Your task to perform on an android device: move an email to a new category in the gmail app Image 0: 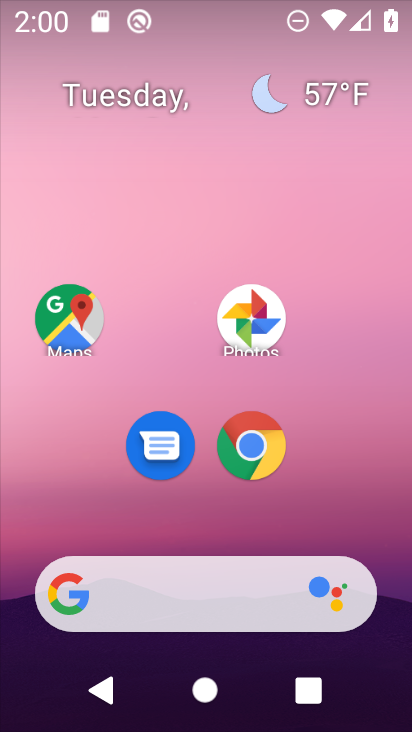
Step 0: drag from (378, 544) to (375, 208)
Your task to perform on an android device: move an email to a new category in the gmail app Image 1: 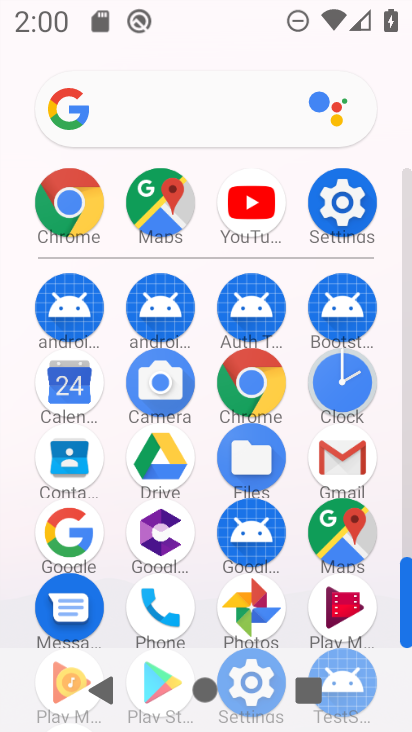
Step 1: click (360, 472)
Your task to perform on an android device: move an email to a new category in the gmail app Image 2: 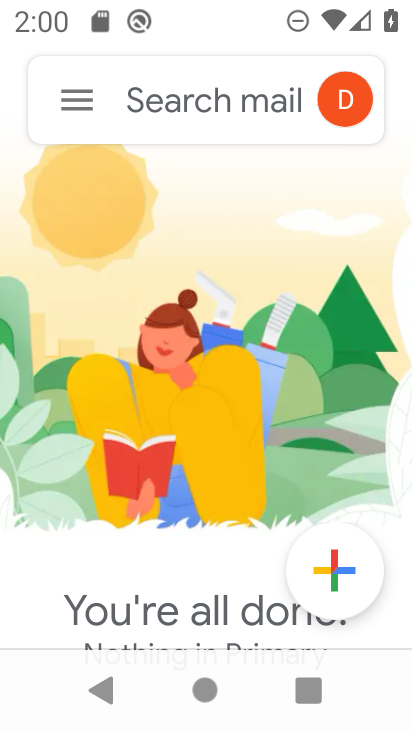
Step 2: click (74, 103)
Your task to perform on an android device: move an email to a new category in the gmail app Image 3: 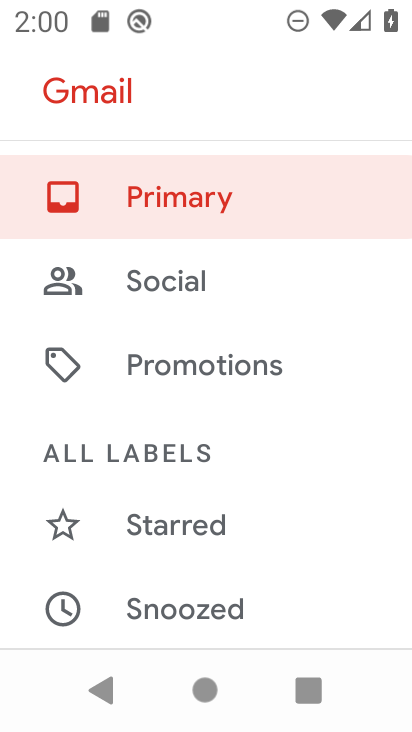
Step 3: drag from (310, 567) to (306, 458)
Your task to perform on an android device: move an email to a new category in the gmail app Image 4: 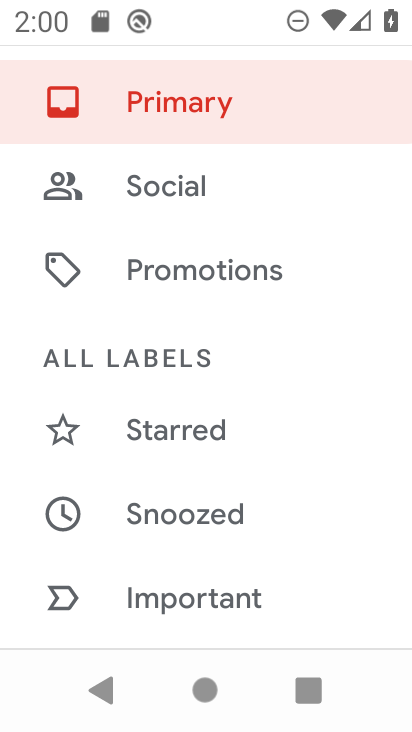
Step 4: drag from (329, 626) to (327, 433)
Your task to perform on an android device: move an email to a new category in the gmail app Image 5: 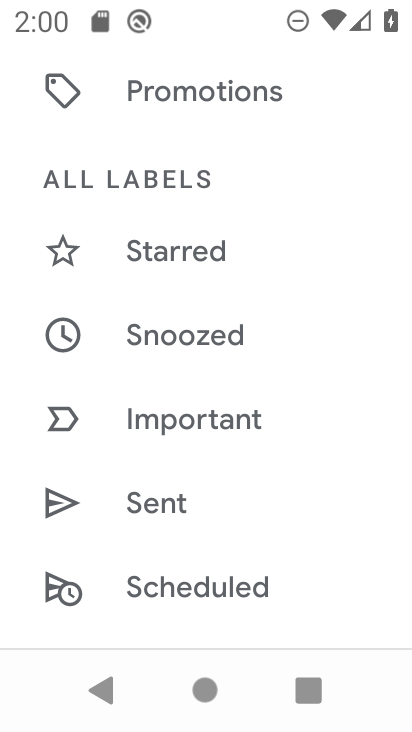
Step 5: drag from (330, 580) to (328, 450)
Your task to perform on an android device: move an email to a new category in the gmail app Image 6: 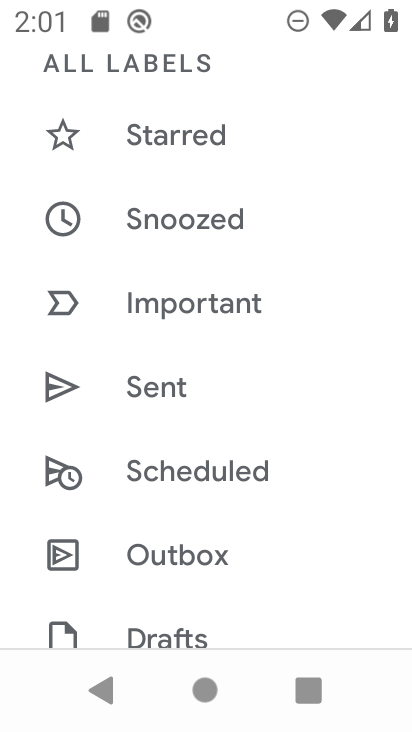
Step 6: drag from (331, 590) to (328, 458)
Your task to perform on an android device: move an email to a new category in the gmail app Image 7: 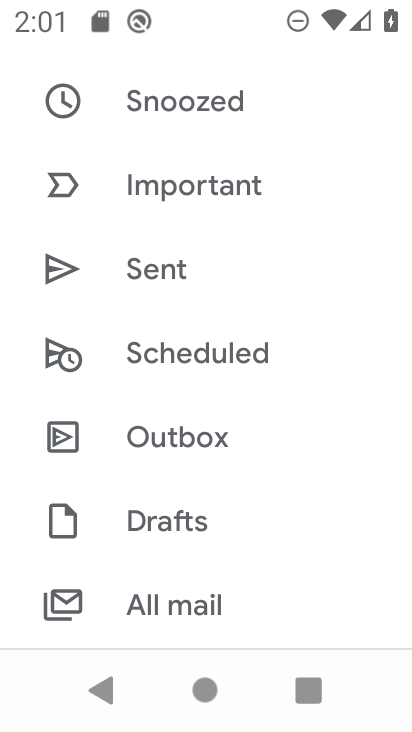
Step 7: drag from (320, 321) to (332, 465)
Your task to perform on an android device: move an email to a new category in the gmail app Image 8: 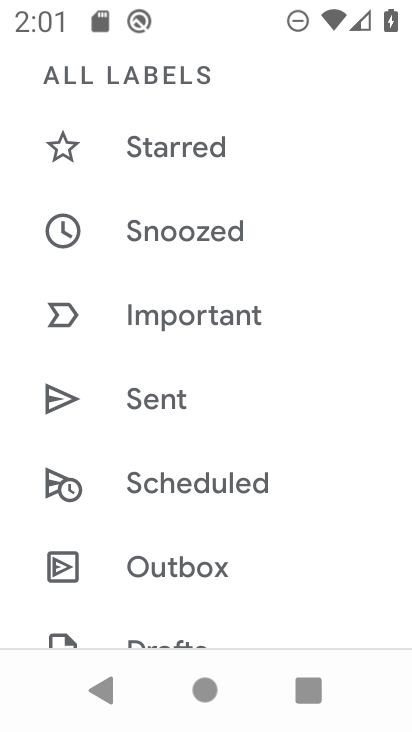
Step 8: drag from (336, 297) to (325, 500)
Your task to perform on an android device: move an email to a new category in the gmail app Image 9: 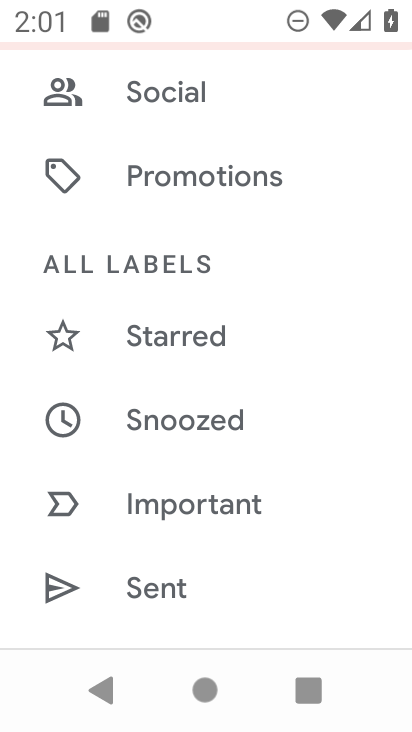
Step 9: drag from (335, 235) to (329, 494)
Your task to perform on an android device: move an email to a new category in the gmail app Image 10: 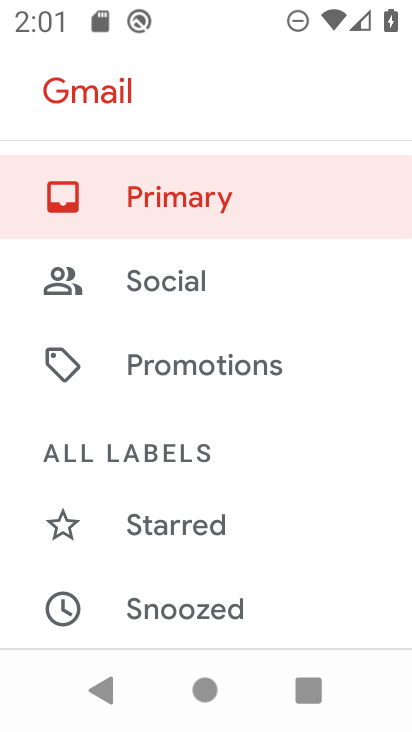
Step 10: click (255, 205)
Your task to perform on an android device: move an email to a new category in the gmail app Image 11: 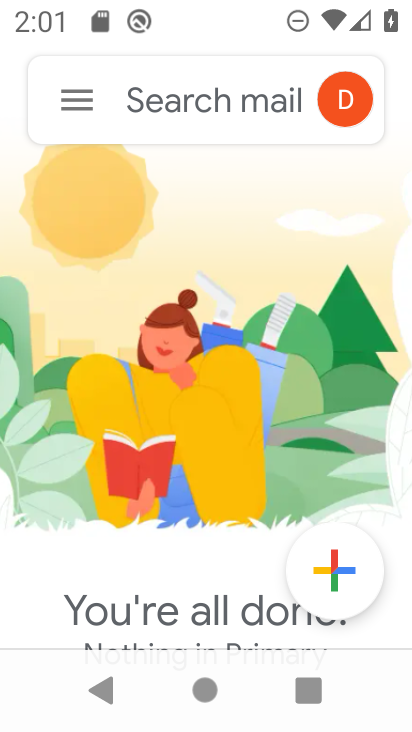
Step 11: task complete